Your task to perform on an android device: Find coffee shops on Maps Image 0: 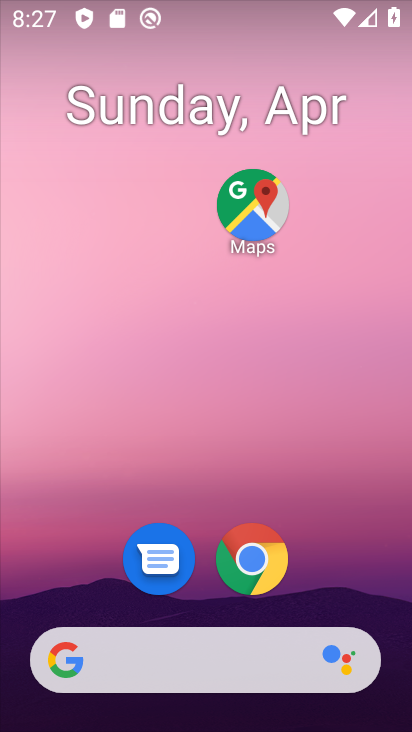
Step 0: click (260, 197)
Your task to perform on an android device: Find coffee shops on Maps Image 1: 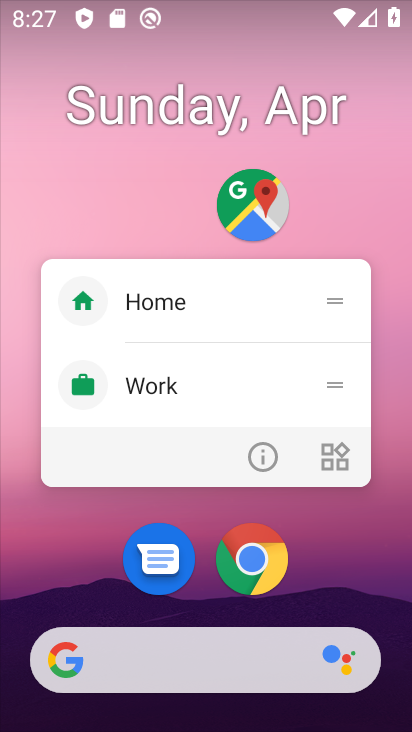
Step 1: click (263, 456)
Your task to perform on an android device: Find coffee shops on Maps Image 2: 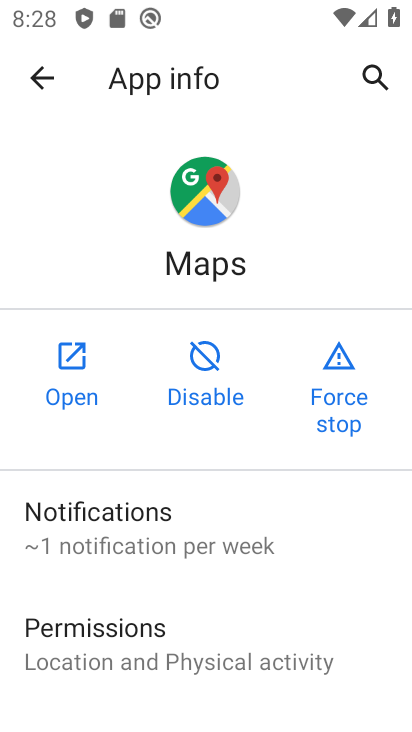
Step 2: click (83, 364)
Your task to perform on an android device: Find coffee shops on Maps Image 3: 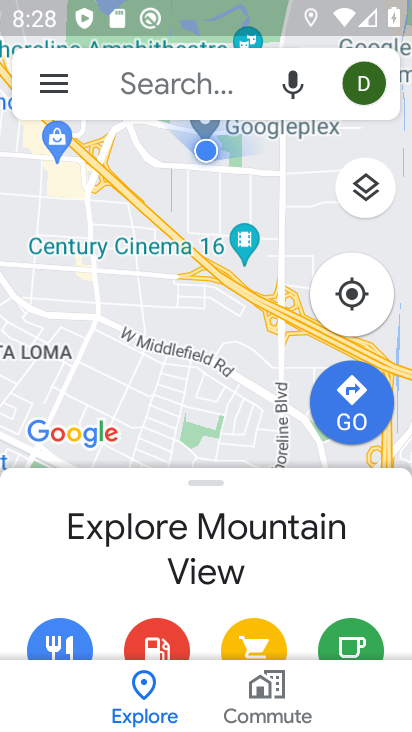
Step 3: click (196, 82)
Your task to perform on an android device: Find coffee shops on Maps Image 4: 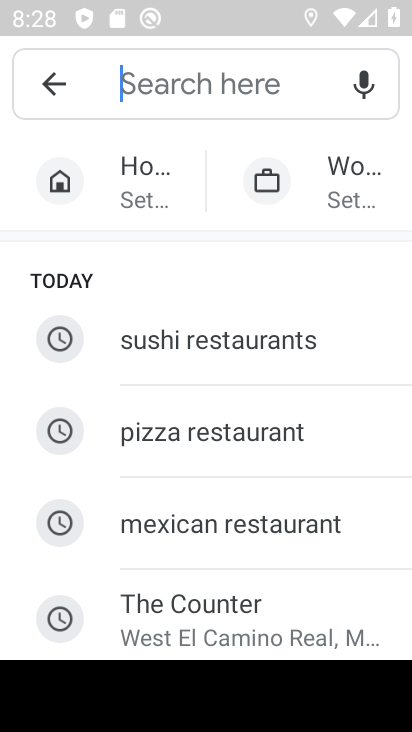
Step 4: drag from (154, 615) to (242, 305)
Your task to perform on an android device: Find coffee shops on Maps Image 5: 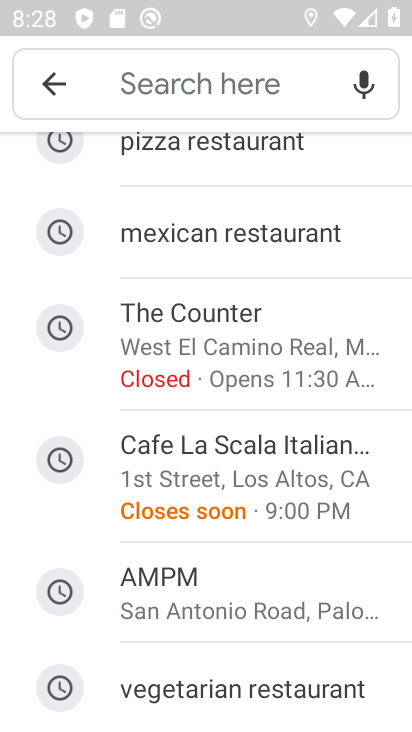
Step 5: drag from (242, 615) to (314, 394)
Your task to perform on an android device: Find coffee shops on Maps Image 6: 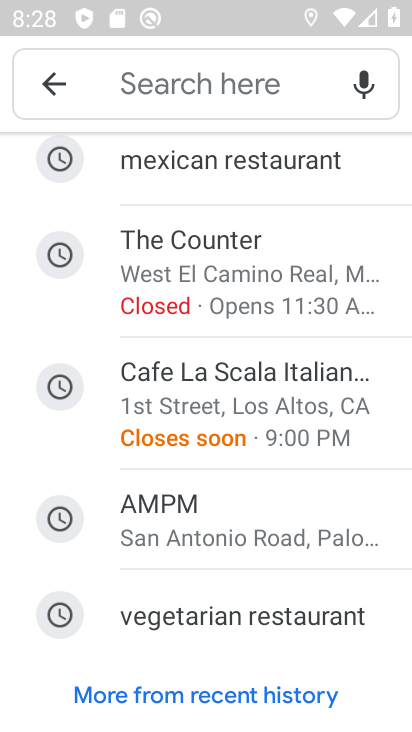
Step 6: drag from (284, 266) to (262, 687)
Your task to perform on an android device: Find coffee shops on Maps Image 7: 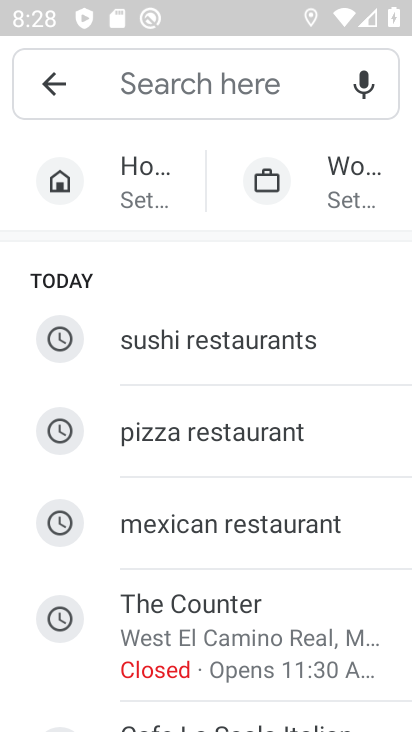
Step 7: click (209, 68)
Your task to perform on an android device: Find coffee shops on Maps Image 8: 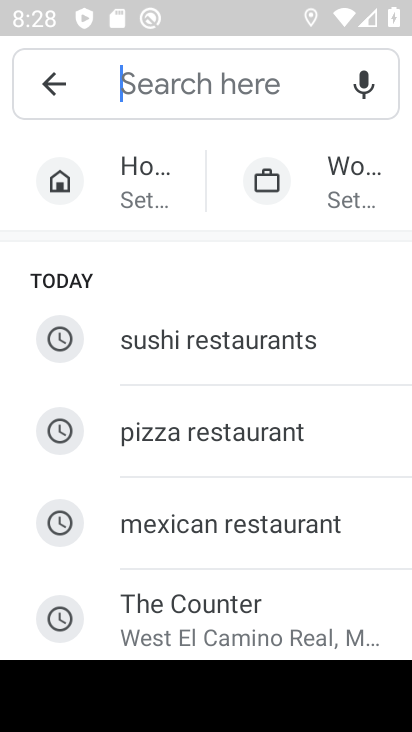
Step 8: type "coffee shops "
Your task to perform on an android device: Find coffee shops on Maps Image 9: 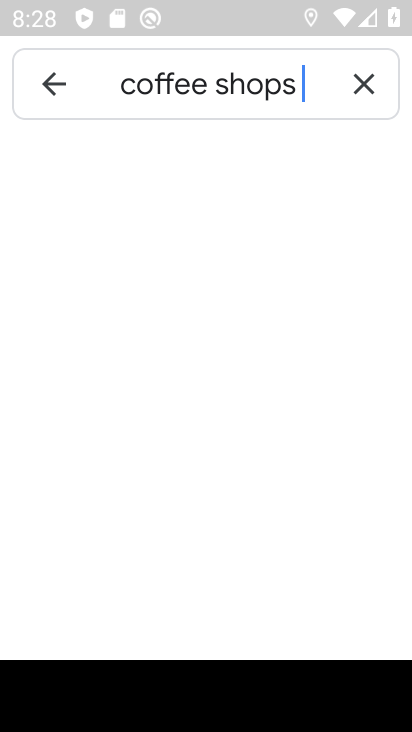
Step 9: type ""
Your task to perform on an android device: Find coffee shops on Maps Image 10: 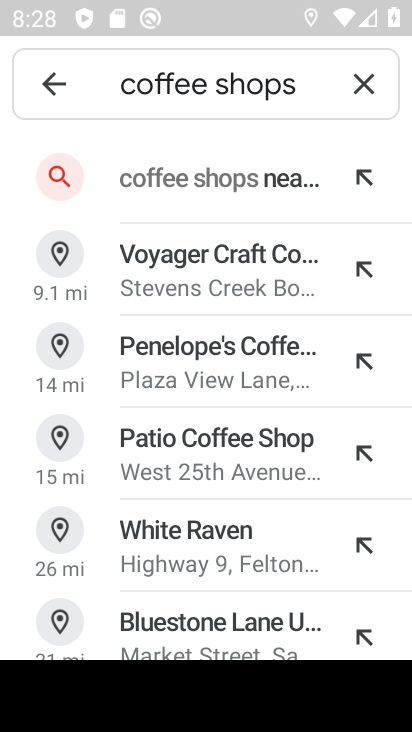
Step 10: click (211, 173)
Your task to perform on an android device: Find coffee shops on Maps Image 11: 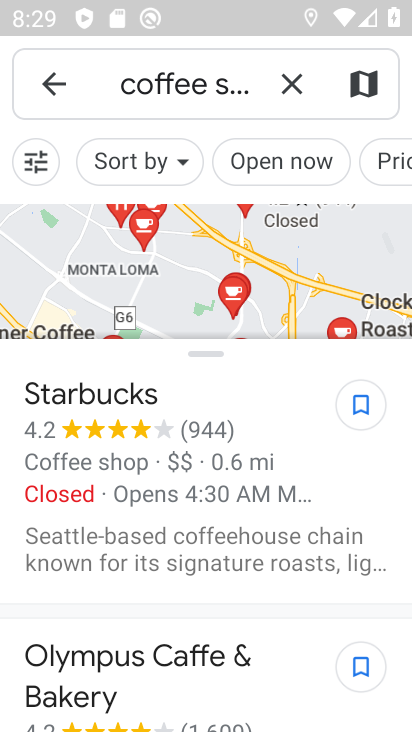
Step 11: task complete